Your task to perform on an android device: Go to accessibility settings Image 0: 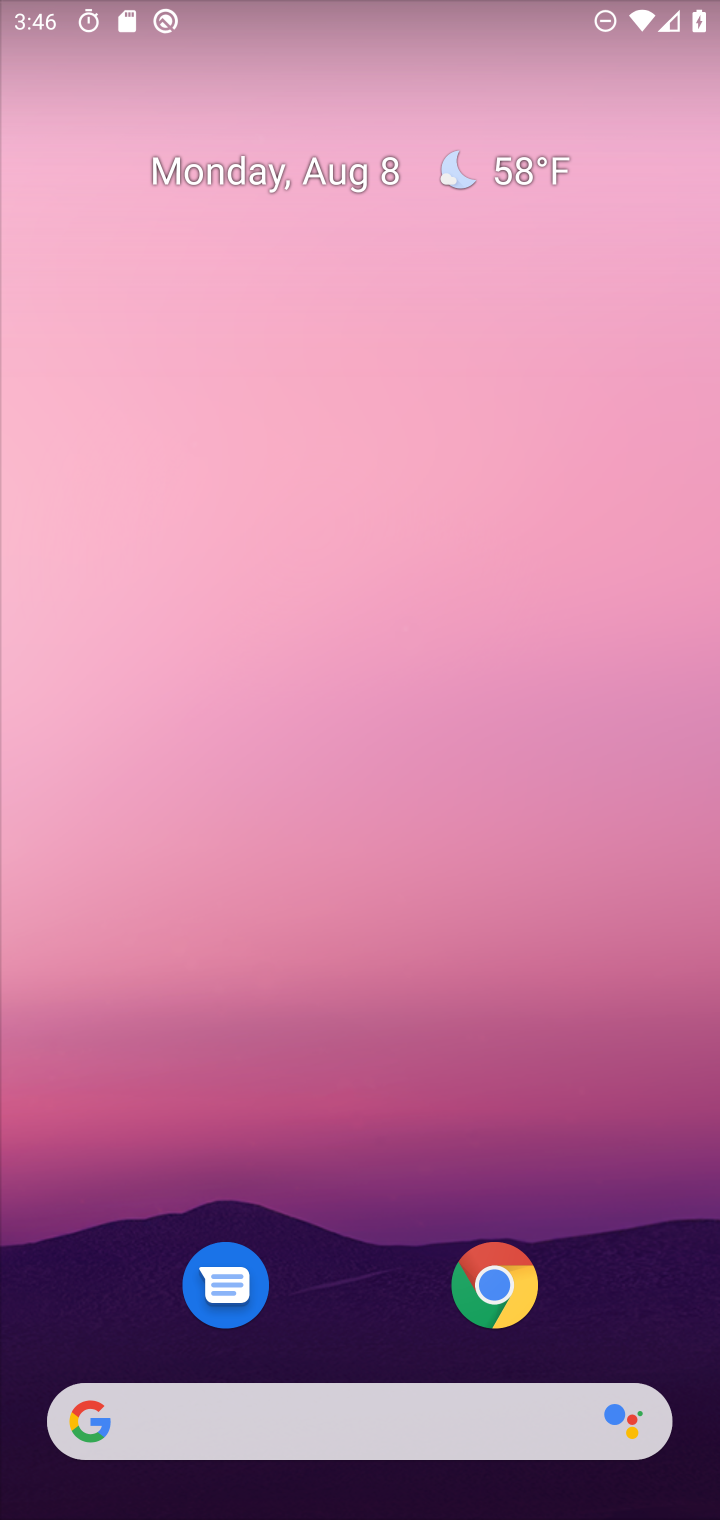
Step 0: drag from (407, 906) to (523, 171)
Your task to perform on an android device: Go to accessibility settings Image 1: 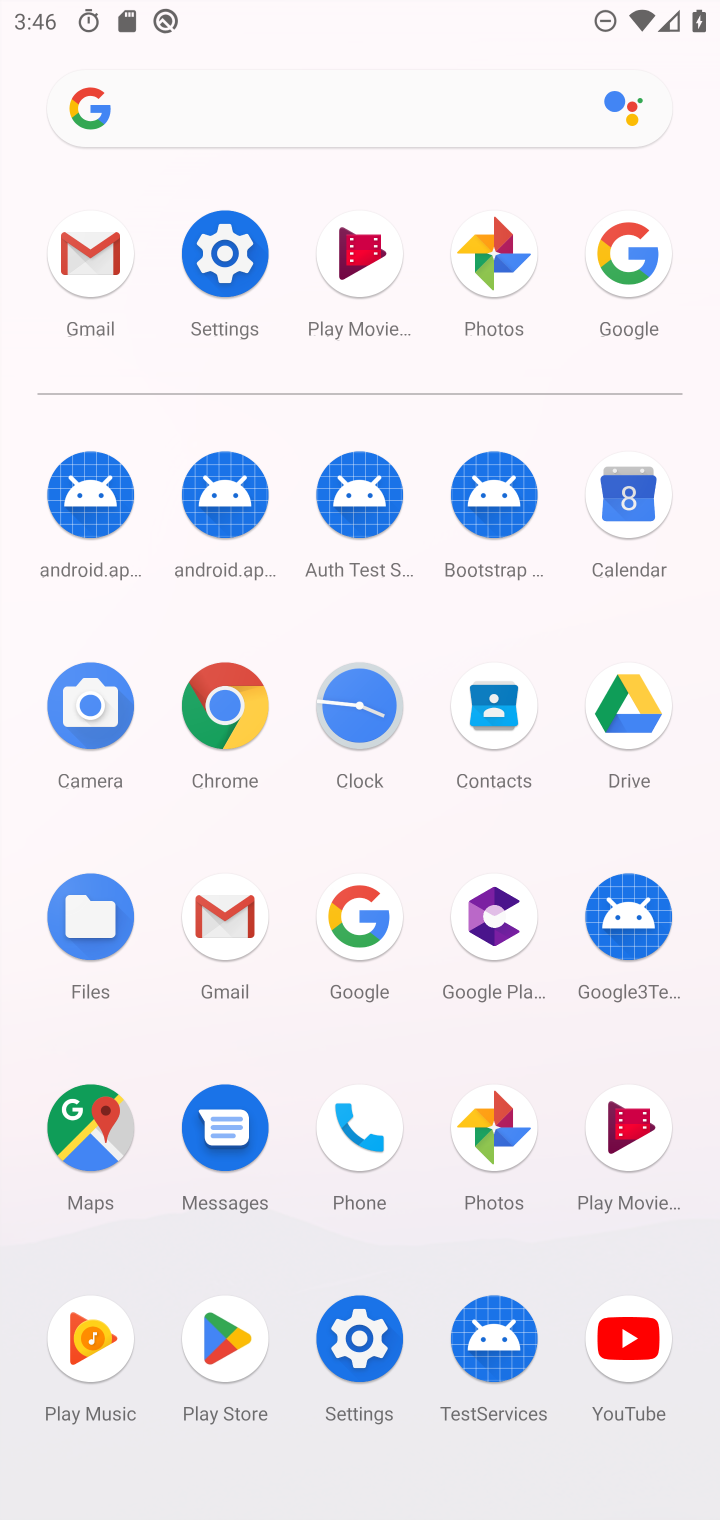
Step 1: click (206, 240)
Your task to perform on an android device: Go to accessibility settings Image 2: 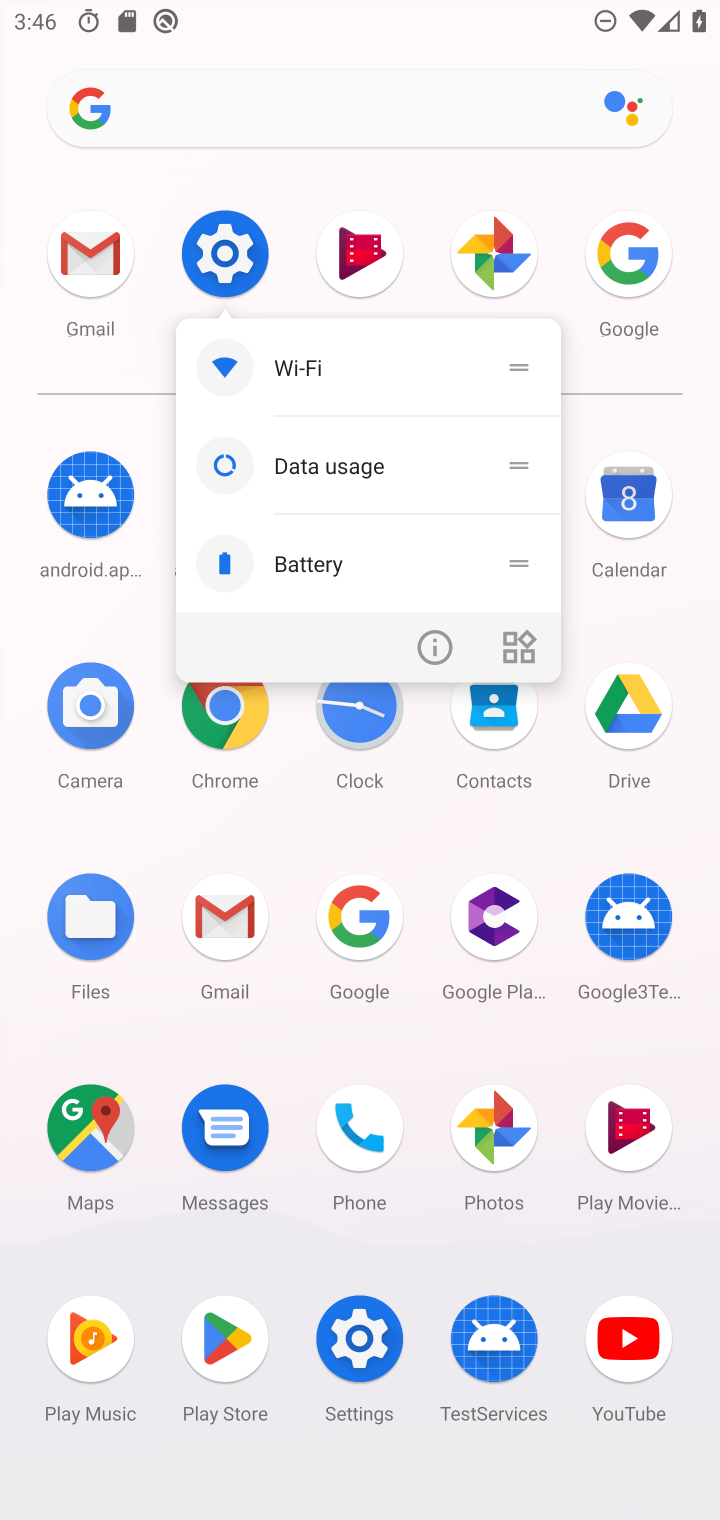
Step 2: click (230, 243)
Your task to perform on an android device: Go to accessibility settings Image 3: 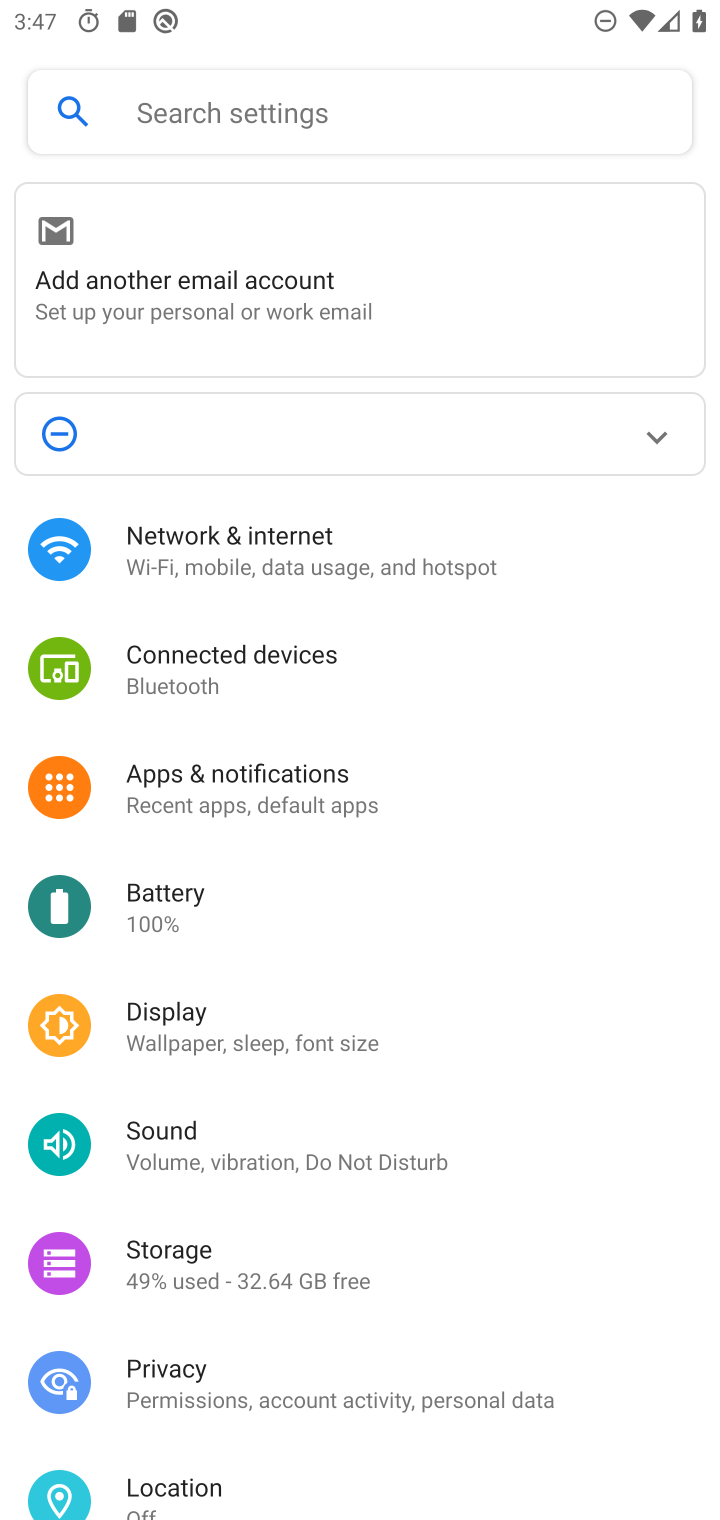
Step 3: drag from (259, 1349) to (467, 131)
Your task to perform on an android device: Go to accessibility settings Image 4: 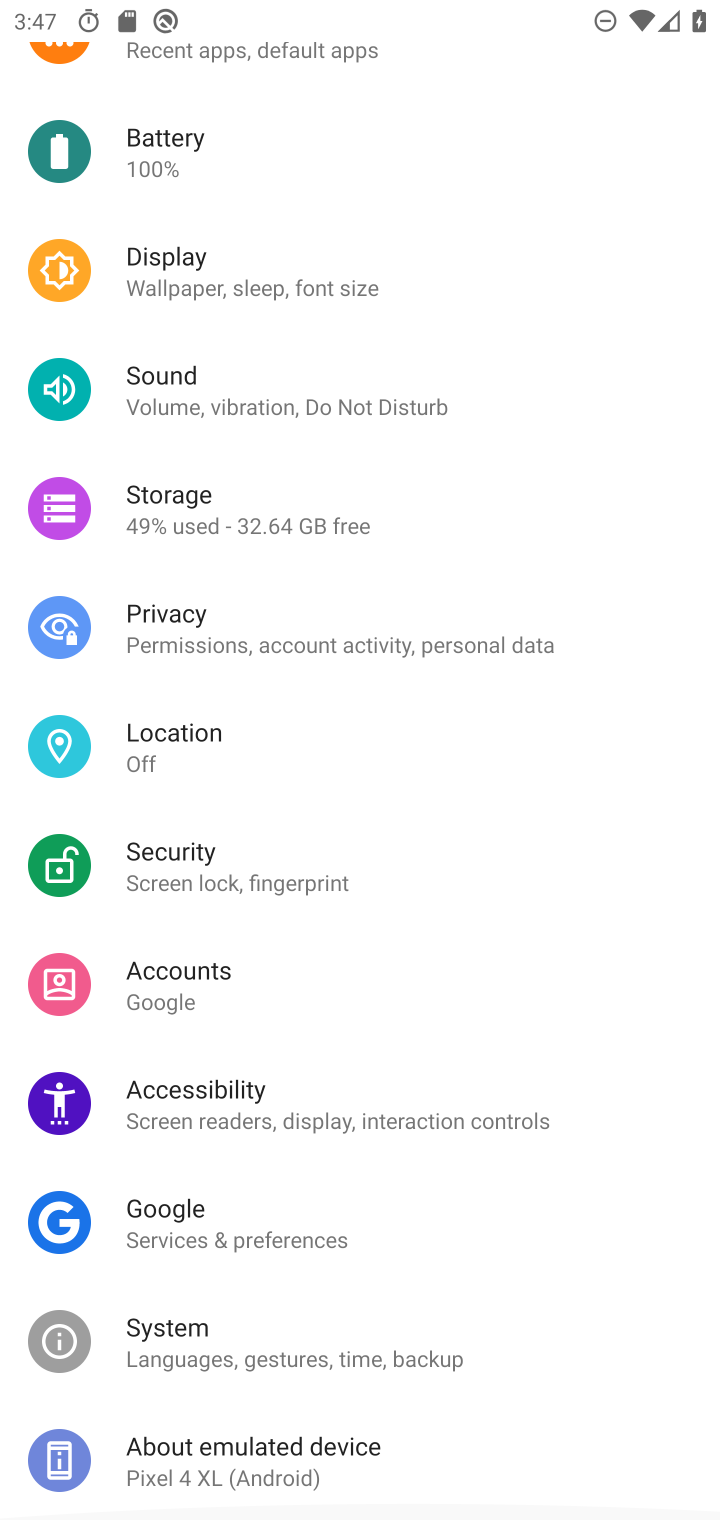
Step 4: click (365, 1093)
Your task to perform on an android device: Go to accessibility settings Image 5: 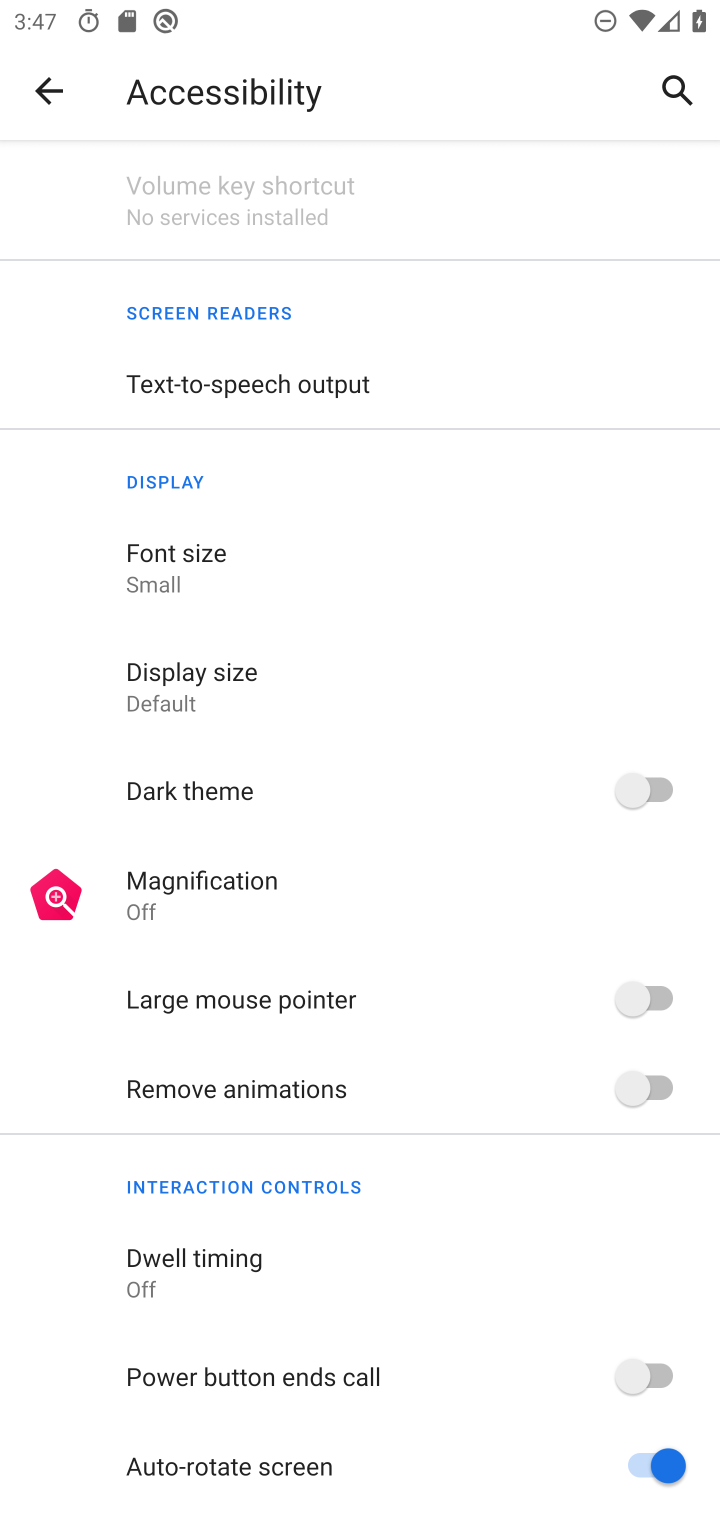
Step 5: task complete